Your task to perform on an android device: Go to wifi settings Image 0: 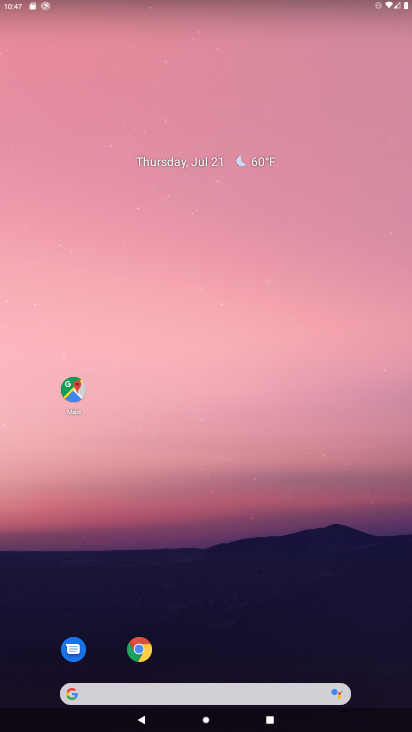
Step 0: press home button
Your task to perform on an android device: Go to wifi settings Image 1: 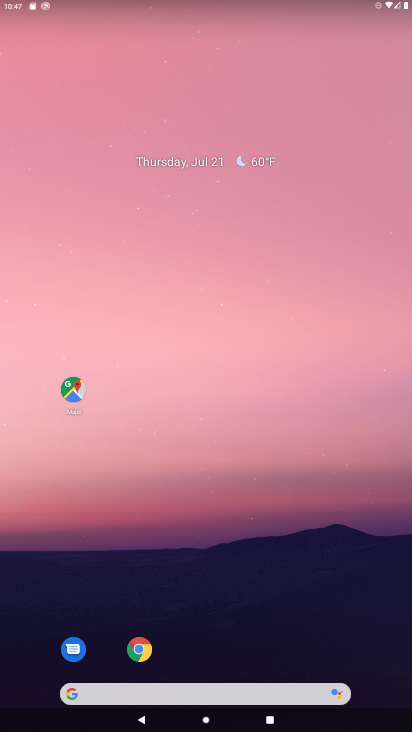
Step 1: drag from (380, 657) to (359, 142)
Your task to perform on an android device: Go to wifi settings Image 2: 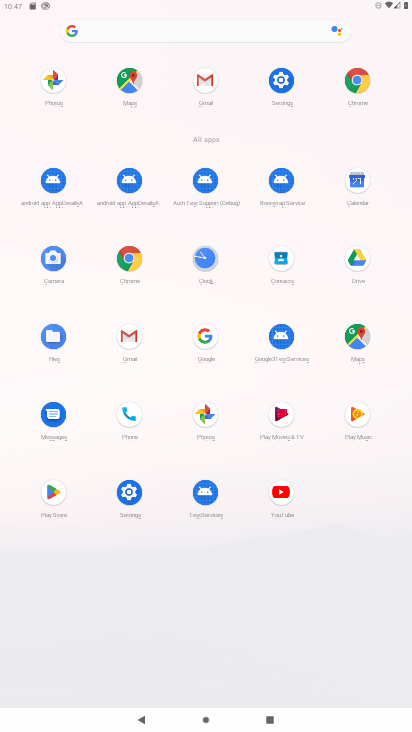
Step 2: click (278, 94)
Your task to perform on an android device: Go to wifi settings Image 3: 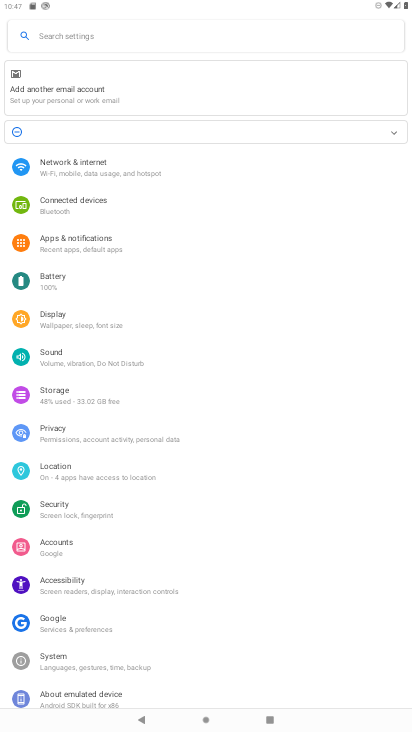
Step 3: click (65, 169)
Your task to perform on an android device: Go to wifi settings Image 4: 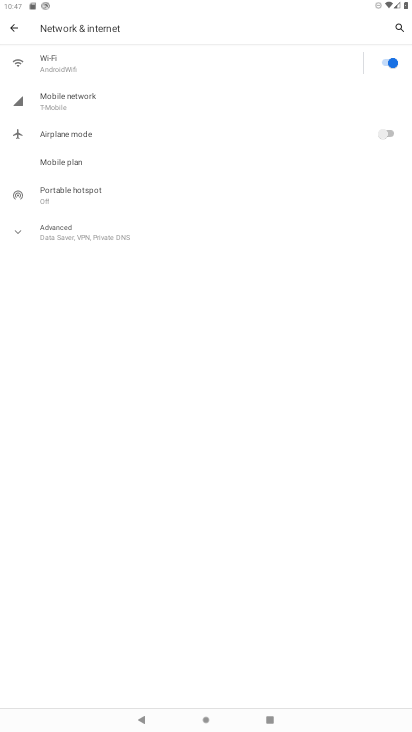
Step 4: click (204, 71)
Your task to perform on an android device: Go to wifi settings Image 5: 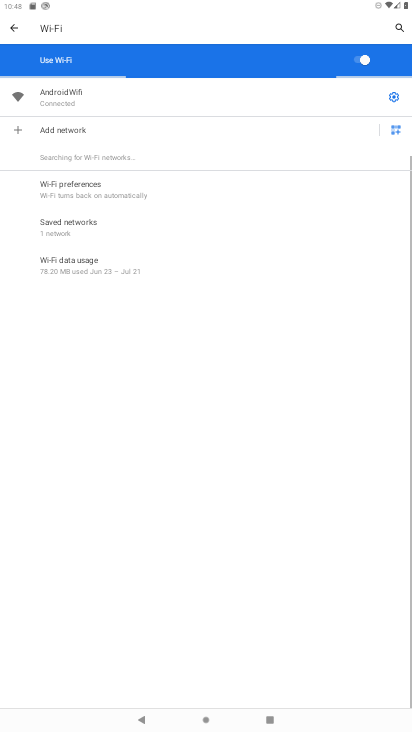
Step 5: click (390, 94)
Your task to perform on an android device: Go to wifi settings Image 6: 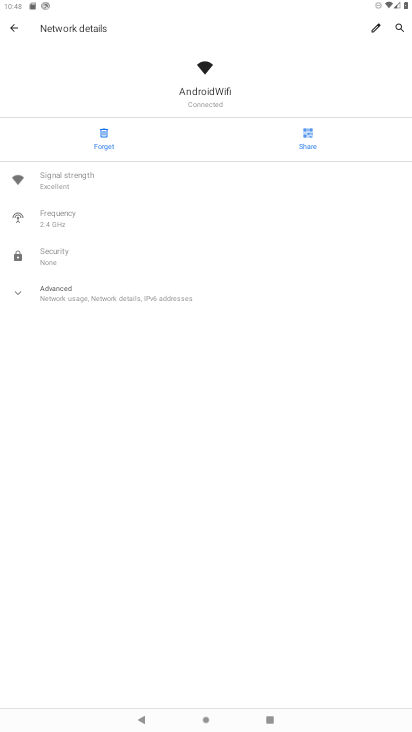
Step 6: task complete